Your task to perform on an android device: turn on notifications settings in the gmail app Image 0: 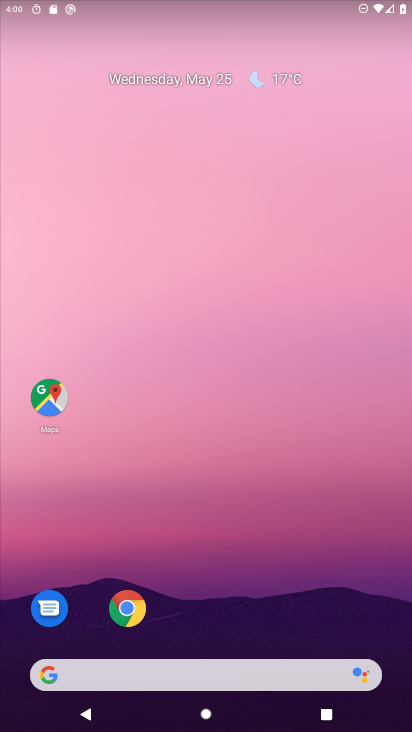
Step 0: drag from (247, 549) to (159, 92)
Your task to perform on an android device: turn on notifications settings in the gmail app Image 1: 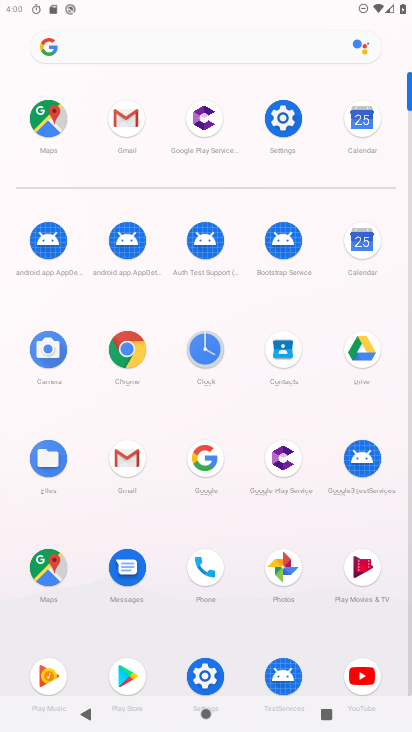
Step 1: click (127, 117)
Your task to perform on an android device: turn on notifications settings in the gmail app Image 2: 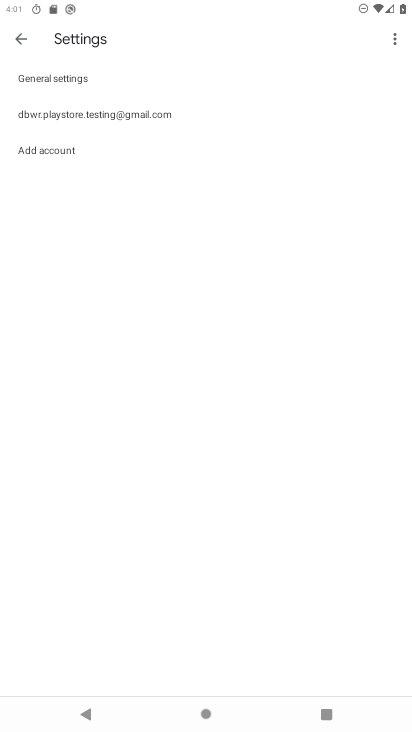
Step 2: press back button
Your task to perform on an android device: turn on notifications settings in the gmail app Image 3: 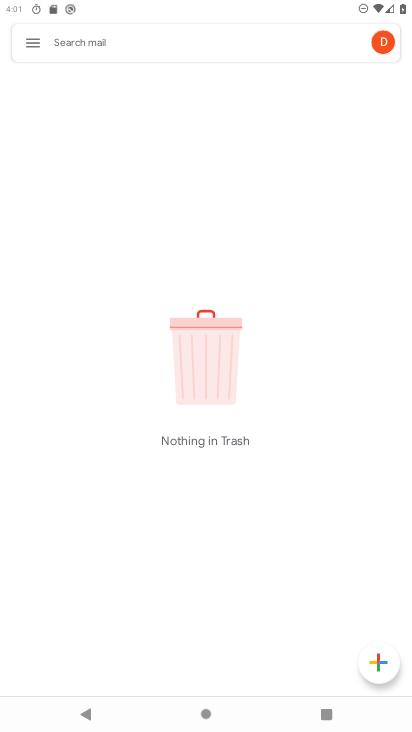
Step 3: click (28, 43)
Your task to perform on an android device: turn on notifications settings in the gmail app Image 4: 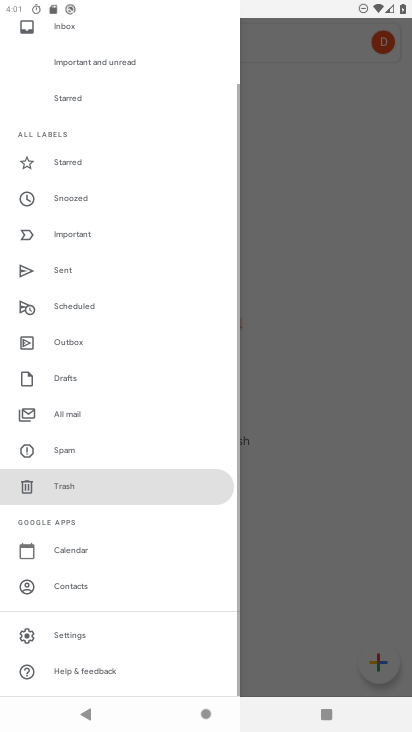
Step 4: click (77, 633)
Your task to perform on an android device: turn on notifications settings in the gmail app Image 5: 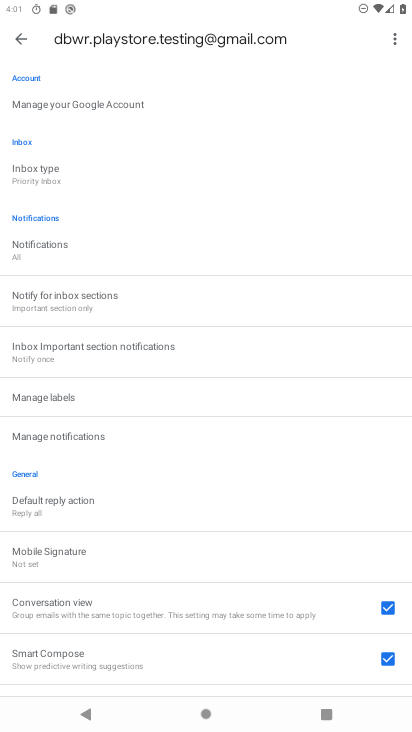
Step 5: drag from (88, 104) to (131, 492)
Your task to perform on an android device: turn on notifications settings in the gmail app Image 6: 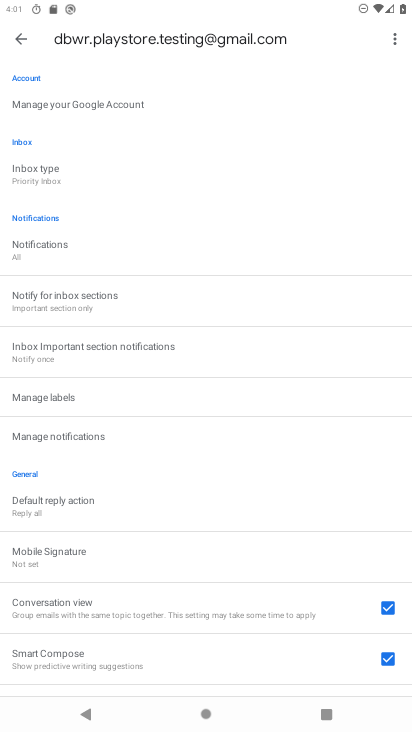
Step 6: click (52, 443)
Your task to perform on an android device: turn on notifications settings in the gmail app Image 7: 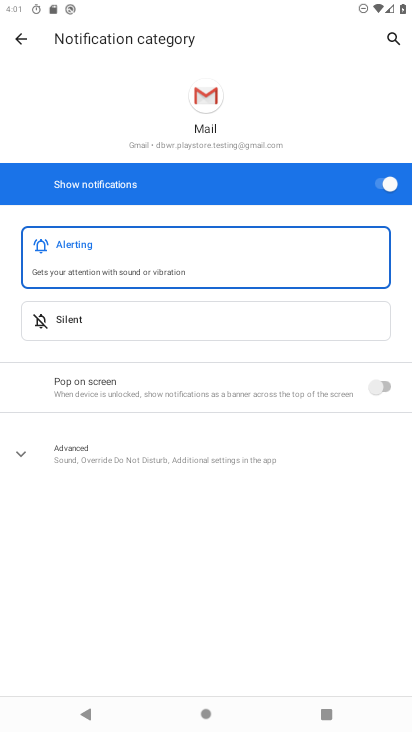
Step 7: task complete